Your task to perform on an android device: Search for Mexican restaurants on Maps Image 0: 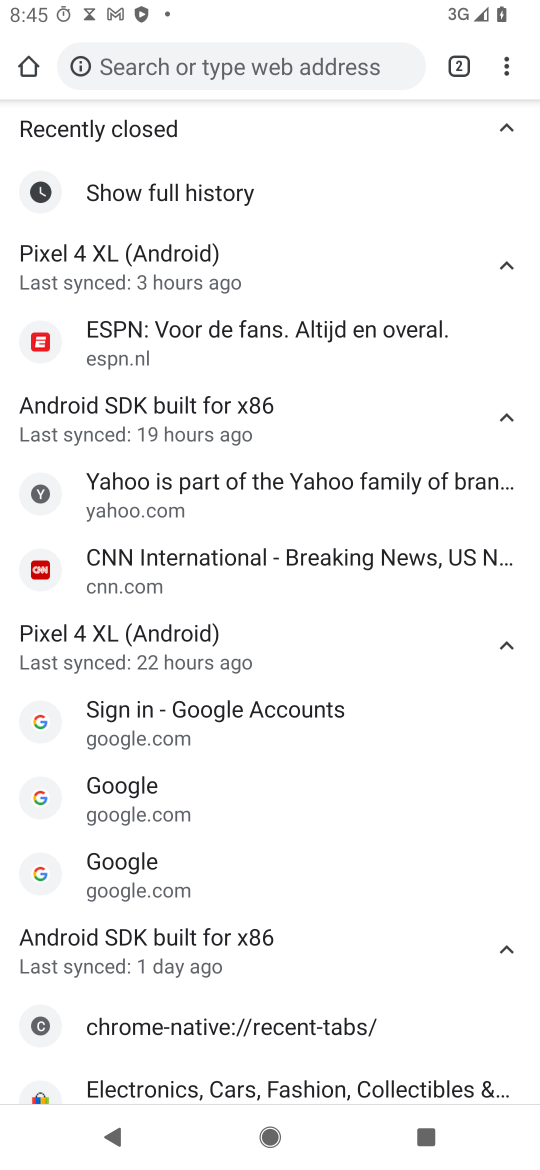
Step 0: task complete